Your task to perform on an android device: When is my next appointment? Image 0: 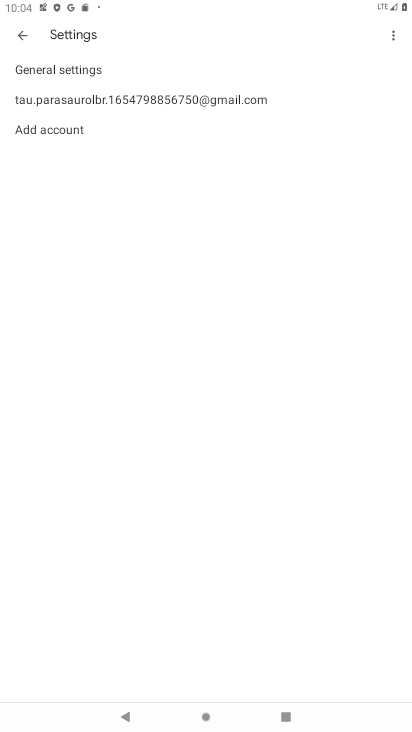
Step 0: press home button
Your task to perform on an android device: When is my next appointment? Image 1: 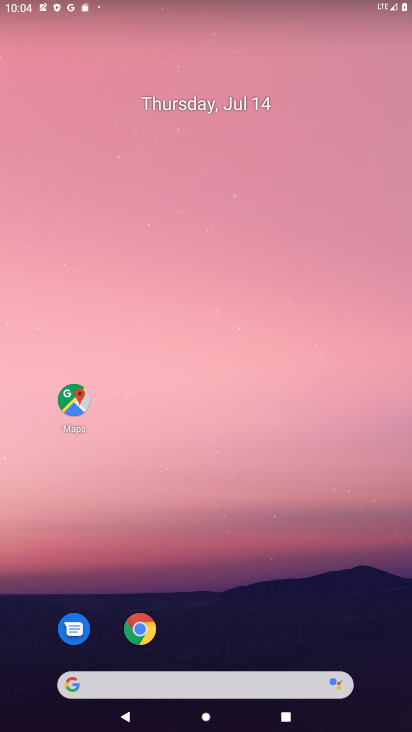
Step 1: drag from (48, 715) to (407, 169)
Your task to perform on an android device: When is my next appointment? Image 2: 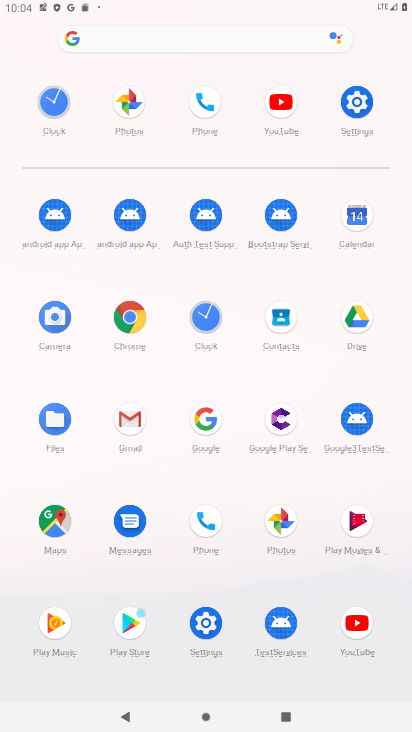
Step 2: click (370, 232)
Your task to perform on an android device: When is my next appointment? Image 3: 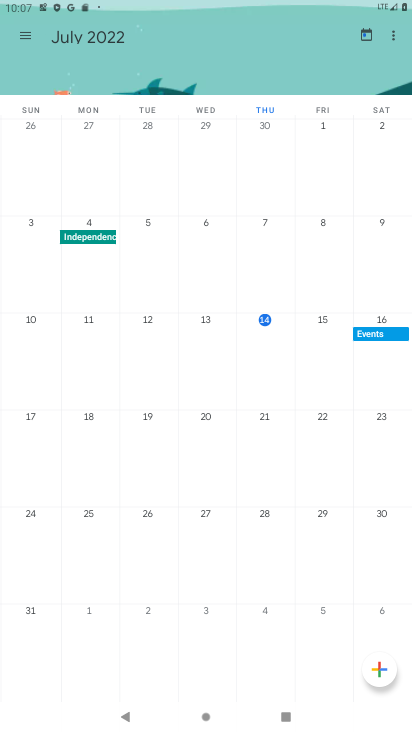
Step 3: task complete